Your task to perform on an android device: Search for pizza restaurants on Maps Image 0: 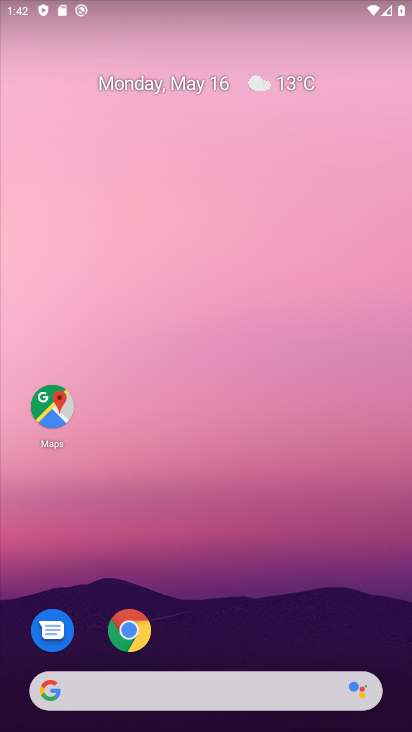
Step 0: click (115, 625)
Your task to perform on an android device: Search for pizza restaurants on Maps Image 1: 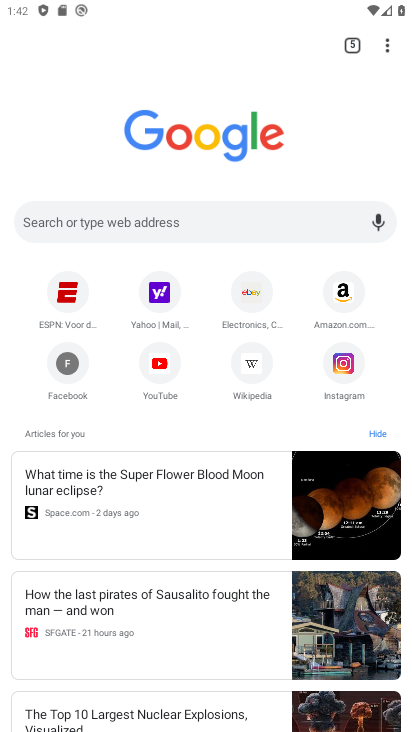
Step 1: press home button
Your task to perform on an android device: Search for pizza restaurants on Maps Image 2: 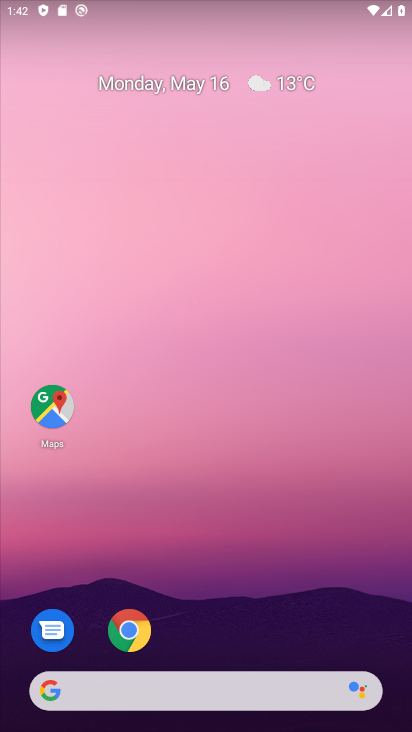
Step 2: click (63, 400)
Your task to perform on an android device: Search for pizza restaurants on Maps Image 3: 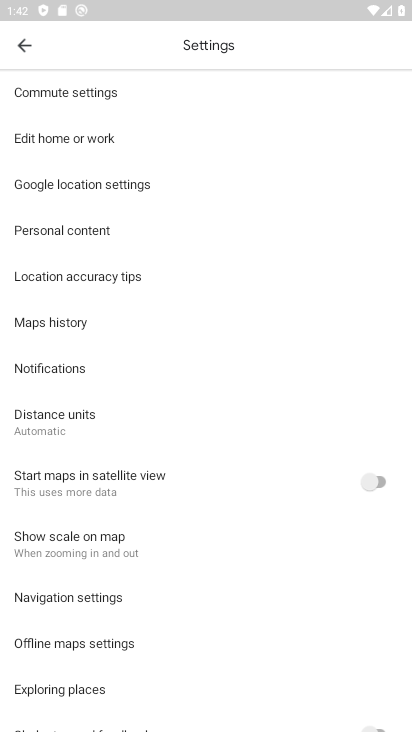
Step 3: press back button
Your task to perform on an android device: Search for pizza restaurants on Maps Image 4: 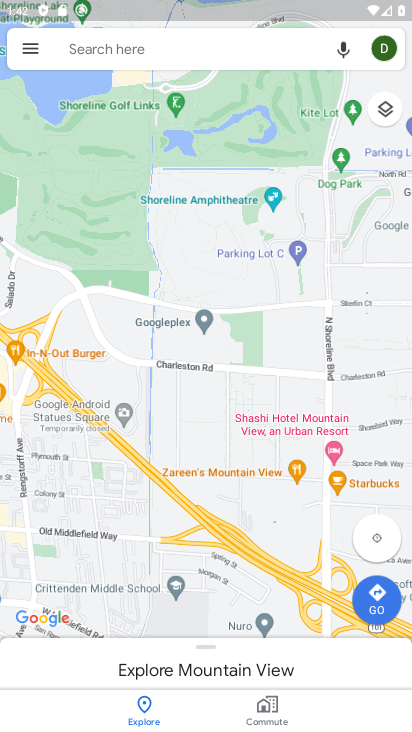
Step 4: click (137, 45)
Your task to perform on an android device: Search for pizza restaurants on Maps Image 5: 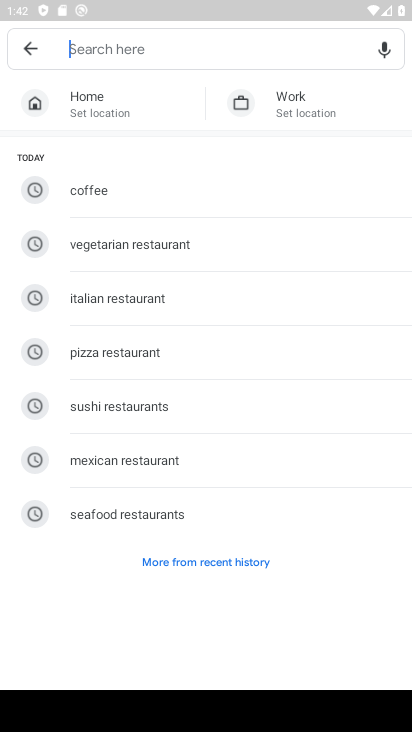
Step 5: type "pizza restaurant"
Your task to perform on an android device: Search for pizza restaurants on Maps Image 6: 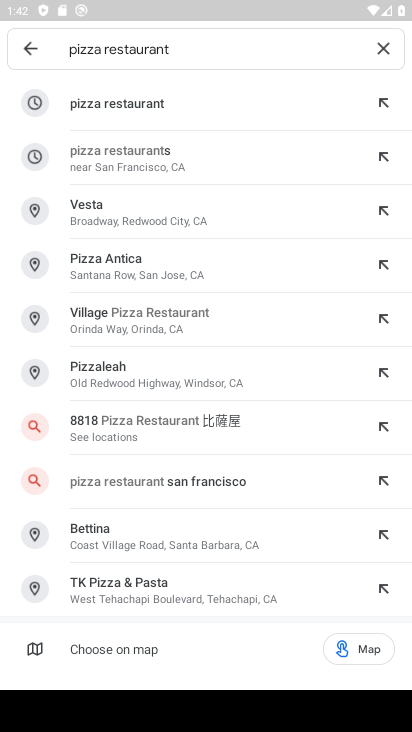
Step 6: click (136, 91)
Your task to perform on an android device: Search for pizza restaurants on Maps Image 7: 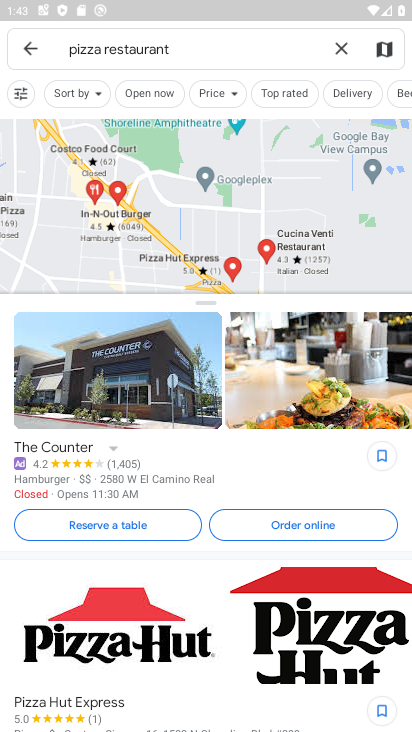
Step 7: task complete